Your task to perform on an android device: See recent photos Image 0: 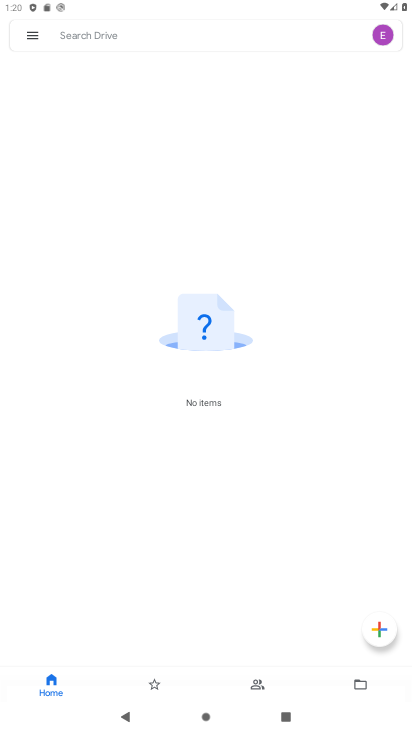
Step 0: press home button
Your task to perform on an android device: See recent photos Image 1: 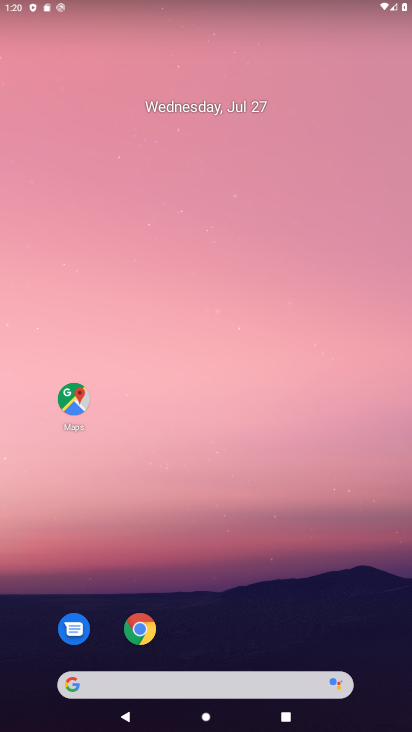
Step 1: drag from (226, 620) to (193, 92)
Your task to perform on an android device: See recent photos Image 2: 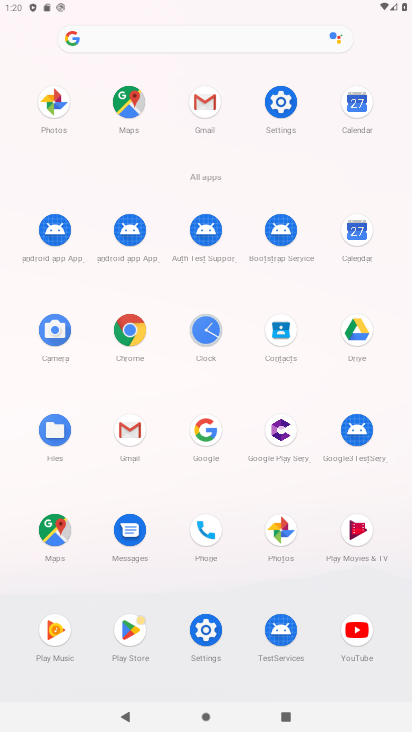
Step 2: click (50, 117)
Your task to perform on an android device: See recent photos Image 3: 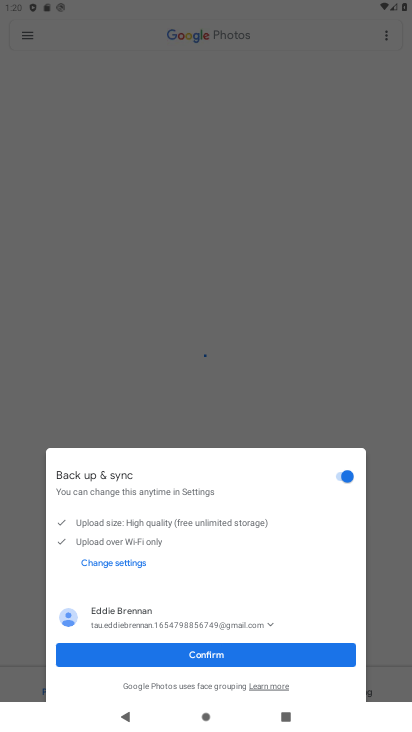
Step 3: click (167, 653)
Your task to perform on an android device: See recent photos Image 4: 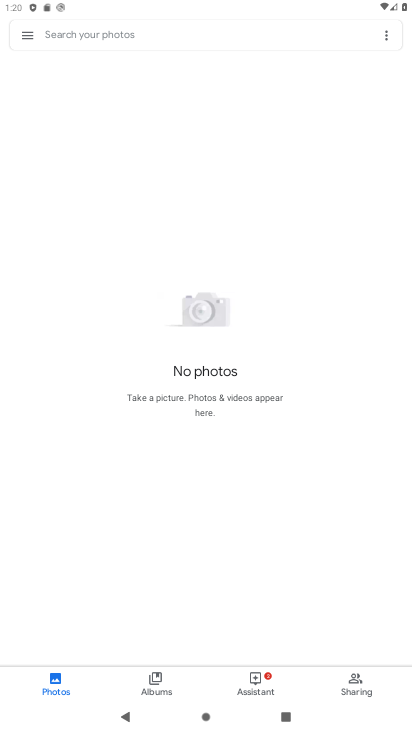
Step 4: task complete